Your task to perform on an android device: Go to network settings Image 0: 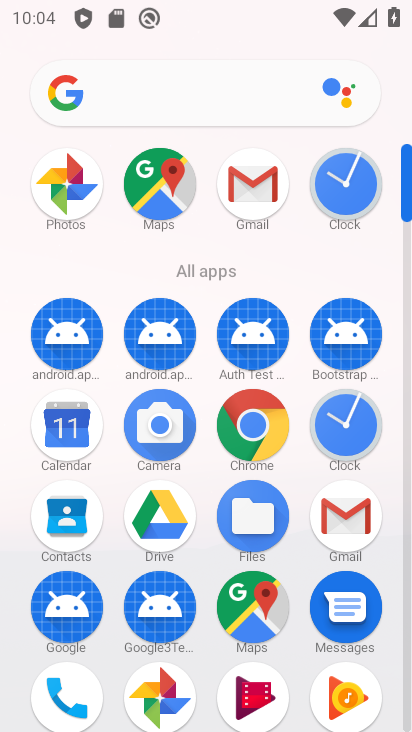
Step 0: drag from (383, 565) to (392, 330)
Your task to perform on an android device: Go to network settings Image 1: 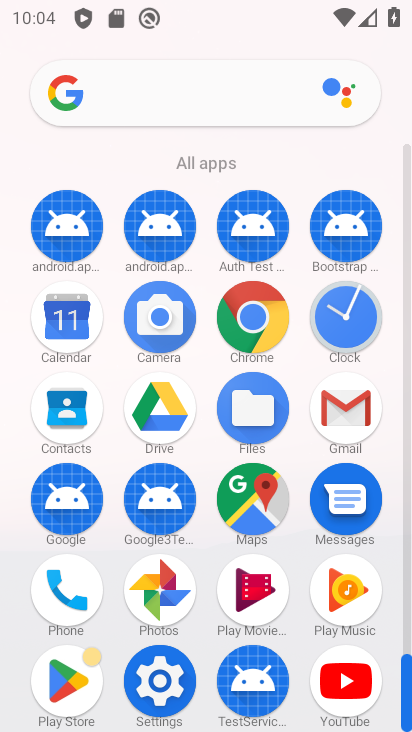
Step 1: click (165, 663)
Your task to perform on an android device: Go to network settings Image 2: 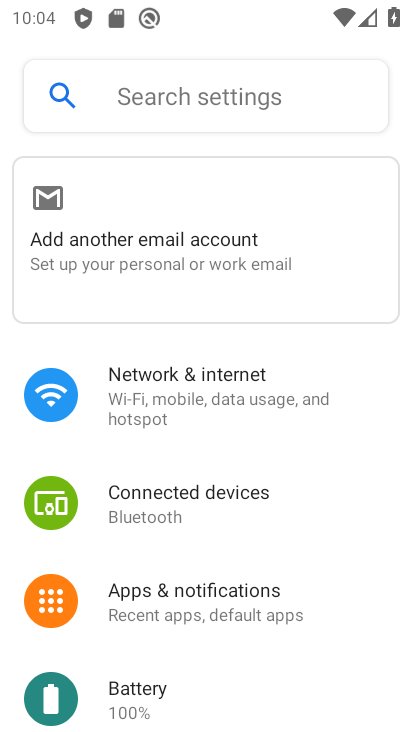
Step 2: click (196, 397)
Your task to perform on an android device: Go to network settings Image 3: 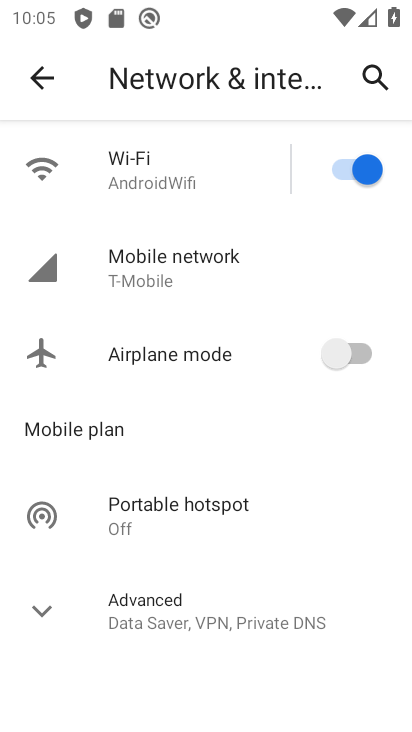
Step 3: task complete